Your task to perform on an android device: turn on bluetooth scan Image 0: 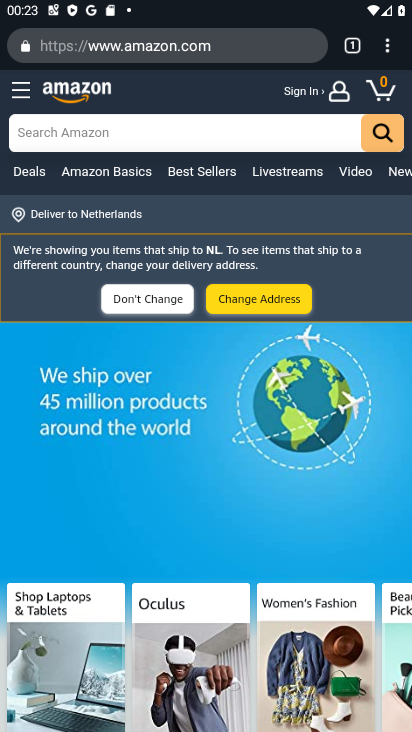
Step 0: press home button
Your task to perform on an android device: turn on bluetooth scan Image 1: 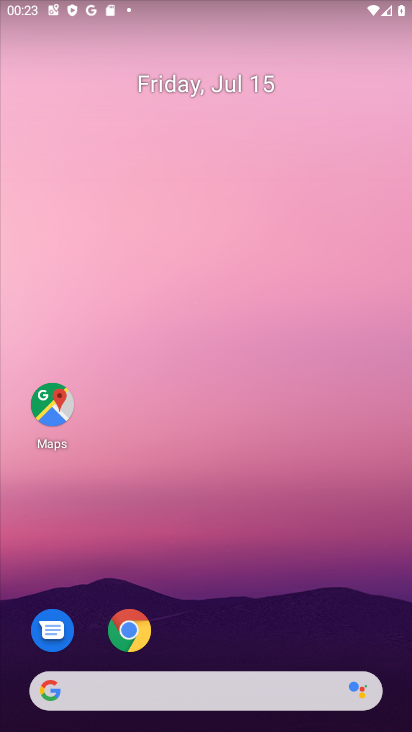
Step 1: drag from (295, 643) to (237, 85)
Your task to perform on an android device: turn on bluetooth scan Image 2: 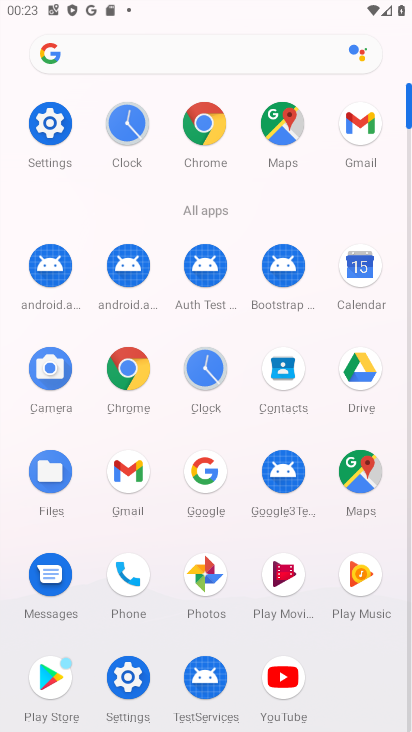
Step 2: click (54, 111)
Your task to perform on an android device: turn on bluetooth scan Image 3: 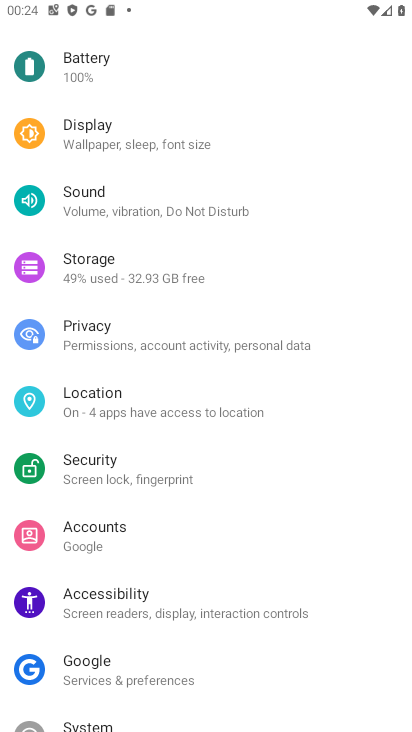
Step 3: click (181, 407)
Your task to perform on an android device: turn on bluetooth scan Image 4: 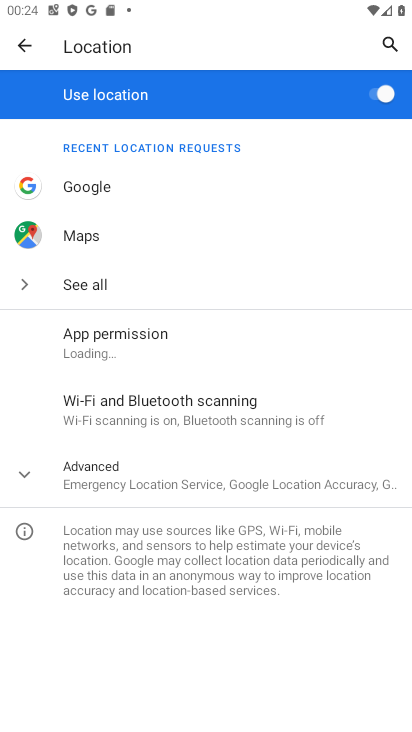
Step 4: click (162, 420)
Your task to perform on an android device: turn on bluetooth scan Image 5: 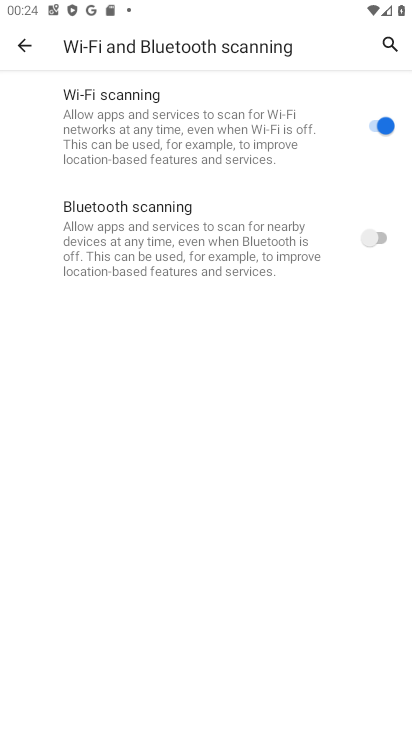
Step 5: click (361, 269)
Your task to perform on an android device: turn on bluetooth scan Image 6: 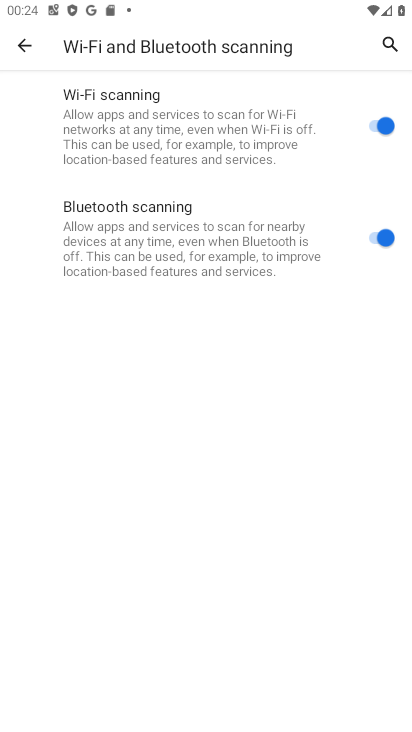
Step 6: task complete